Your task to perform on an android device: Open calendar and show me the fourth week of next month Image 0: 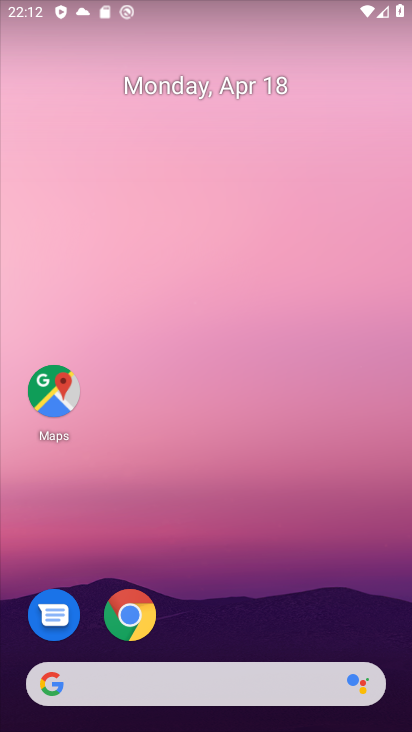
Step 0: drag from (327, 618) to (293, 27)
Your task to perform on an android device: Open calendar and show me the fourth week of next month Image 1: 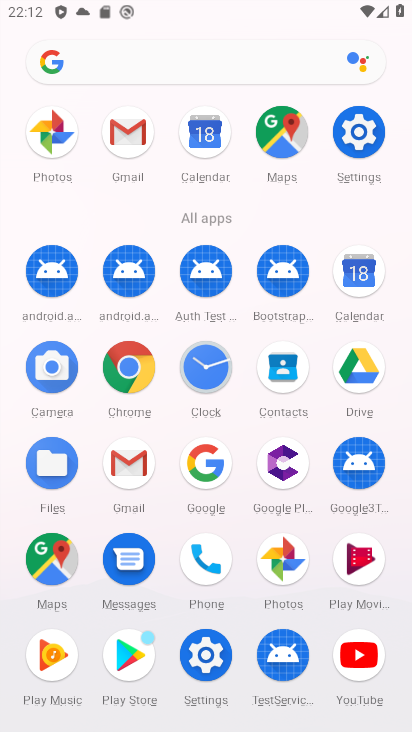
Step 1: click (359, 286)
Your task to perform on an android device: Open calendar and show me the fourth week of next month Image 2: 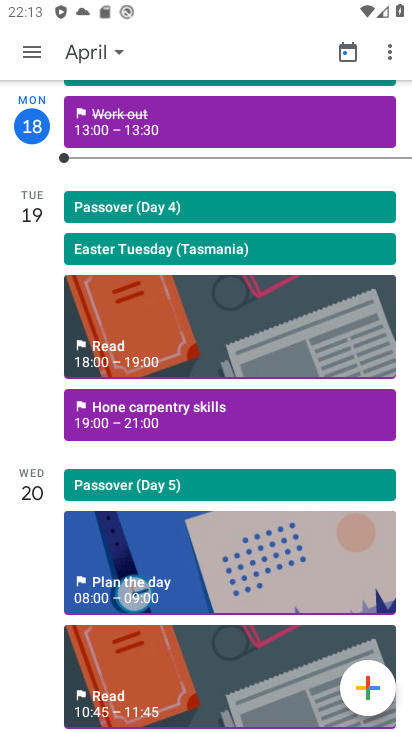
Step 2: click (117, 50)
Your task to perform on an android device: Open calendar and show me the fourth week of next month Image 3: 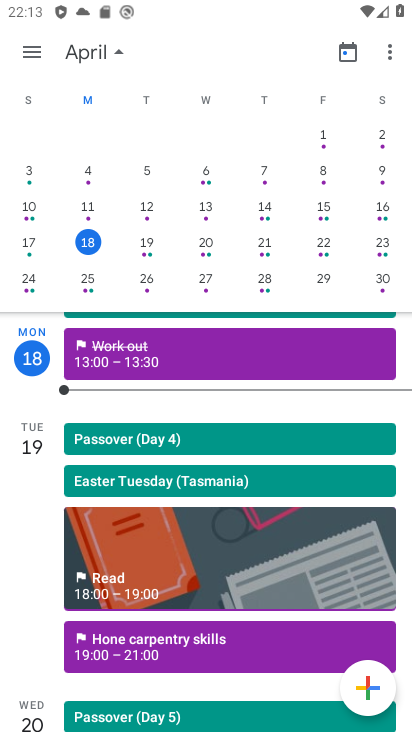
Step 3: drag from (314, 207) to (2, 183)
Your task to perform on an android device: Open calendar and show me the fourth week of next month Image 4: 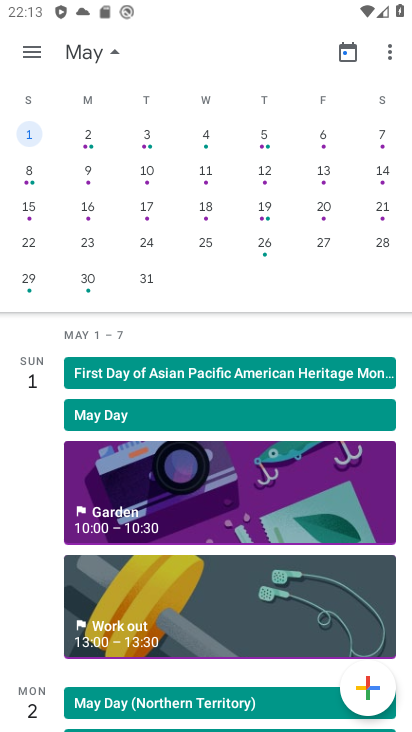
Step 4: click (30, 48)
Your task to perform on an android device: Open calendar and show me the fourth week of next month Image 5: 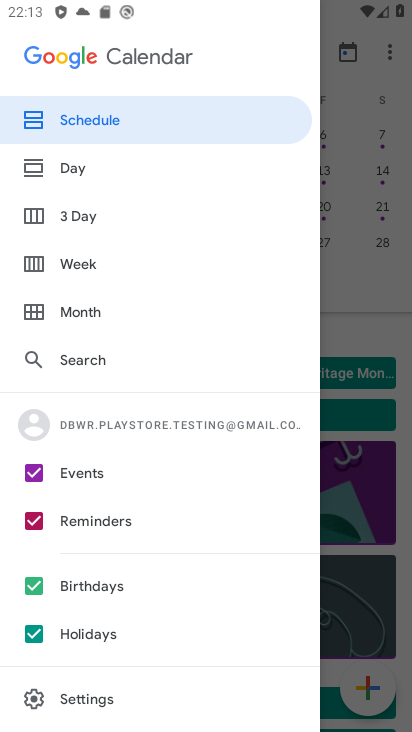
Step 5: click (68, 266)
Your task to perform on an android device: Open calendar and show me the fourth week of next month Image 6: 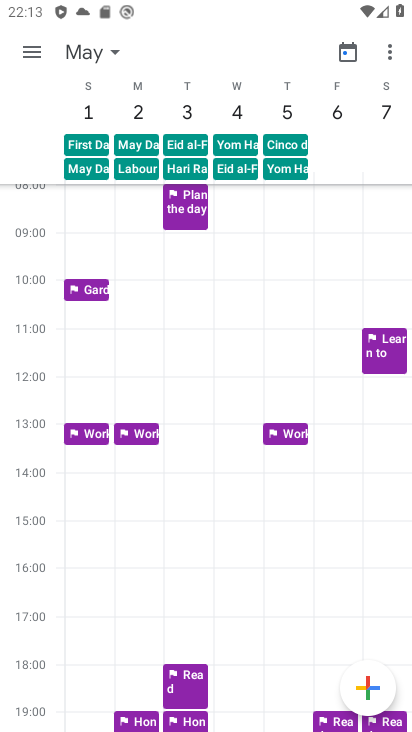
Step 6: task complete